Your task to perform on an android device: Open Yahoo.com Image 0: 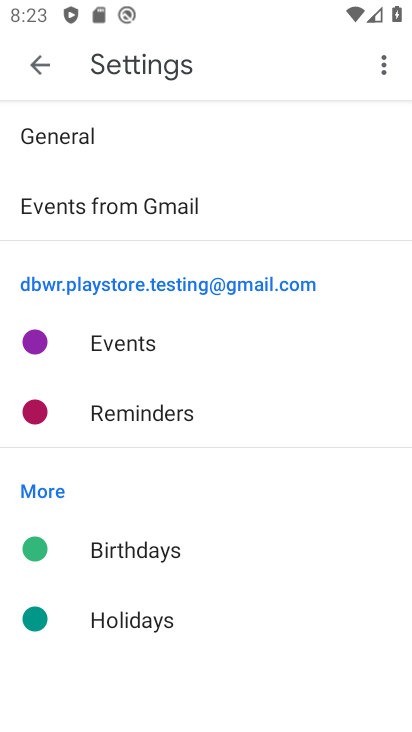
Step 0: press back button
Your task to perform on an android device: Open Yahoo.com Image 1: 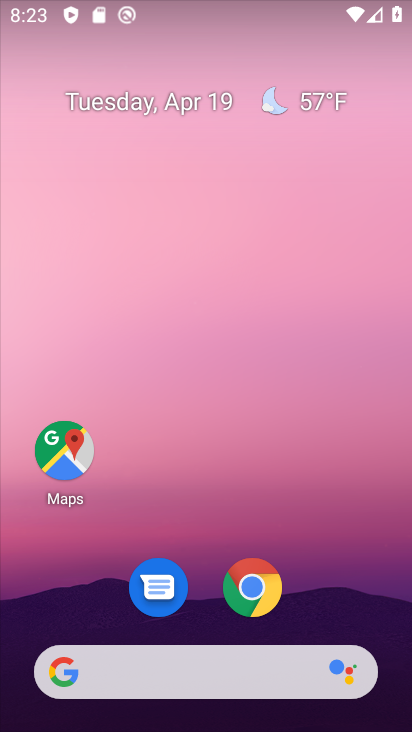
Step 1: click (239, 590)
Your task to perform on an android device: Open Yahoo.com Image 2: 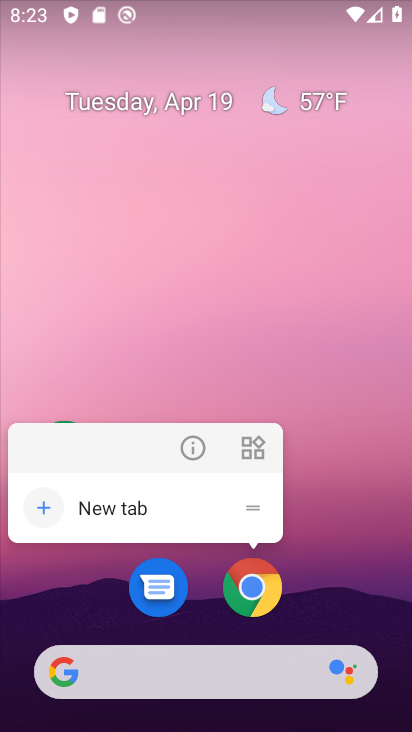
Step 2: click (266, 596)
Your task to perform on an android device: Open Yahoo.com Image 3: 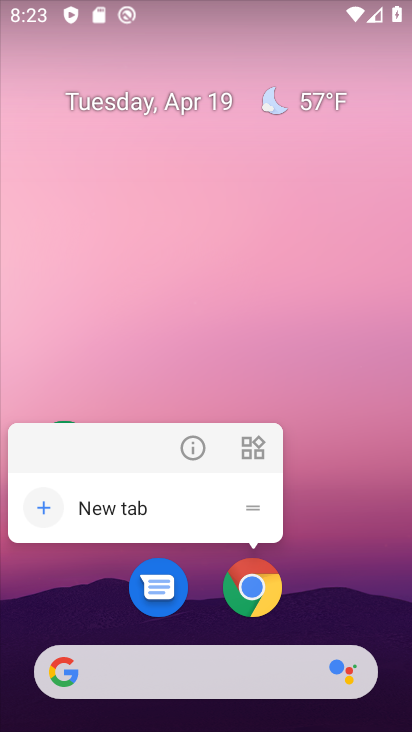
Step 3: click (265, 596)
Your task to perform on an android device: Open Yahoo.com Image 4: 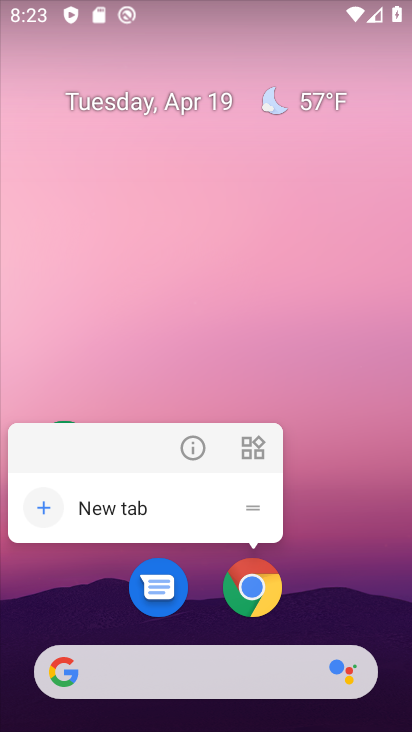
Step 4: click (264, 596)
Your task to perform on an android device: Open Yahoo.com Image 5: 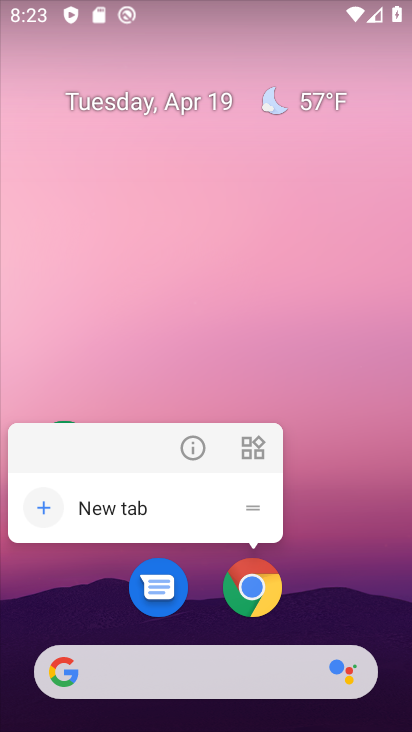
Step 5: click (246, 577)
Your task to perform on an android device: Open Yahoo.com Image 6: 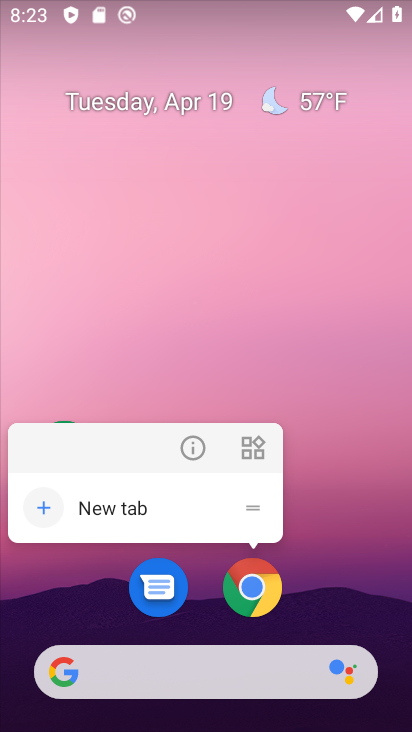
Step 6: click (260, 596)
Your task to perform on an android device: Open Yahoo.com Image 7: 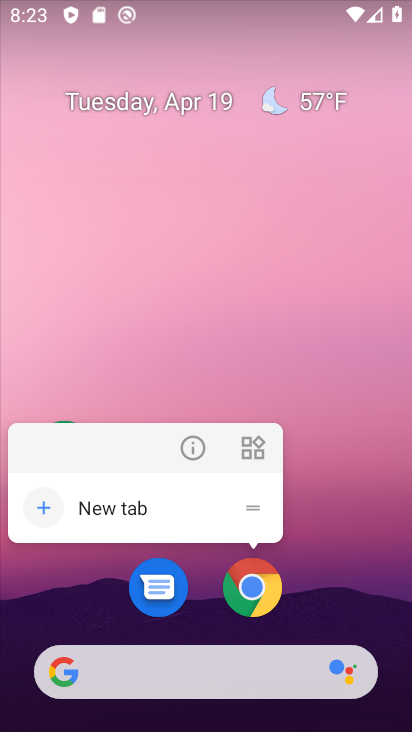
Step 7: click (260, 596)
Your task to perform on an android device: Open Yahoo.com Image 8: 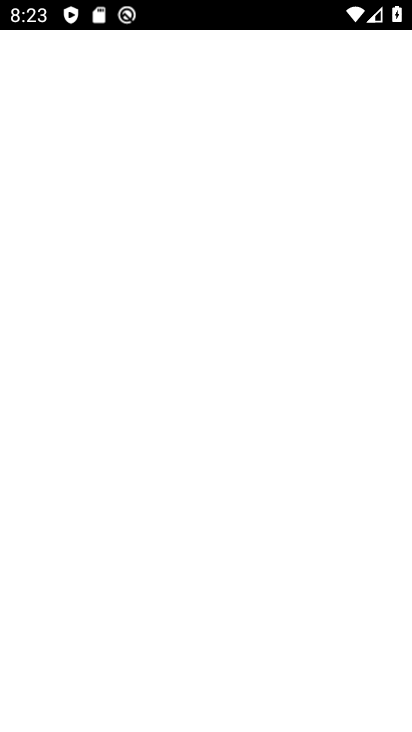
Step 8: drag from (292, 633) to (404, 199)
Your task to perform on an android device: Open Yahoo.com Image 9: 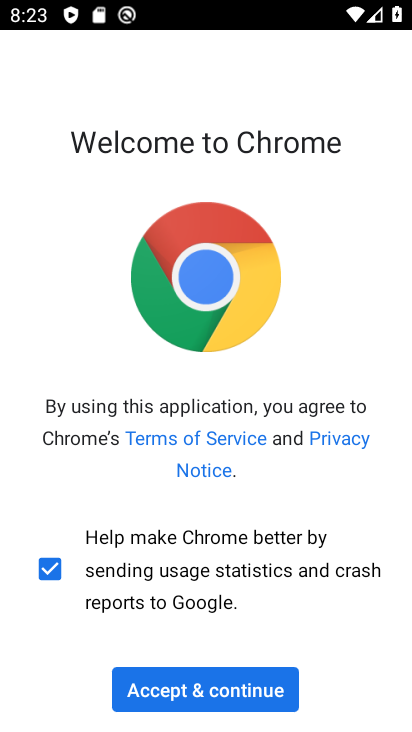
Step 9: click (177, 704)
Your task to perform on an android device: Open Yahoo.com Image 10: 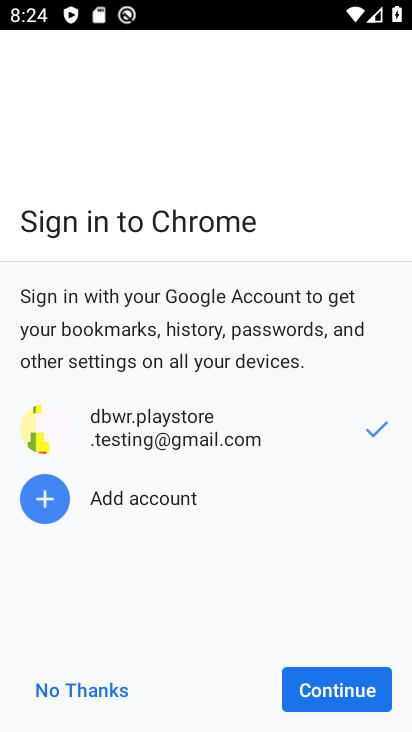
Step 10: click (357, 701)
Your task to perform on an android device: Open Yahoo.com Image 11: 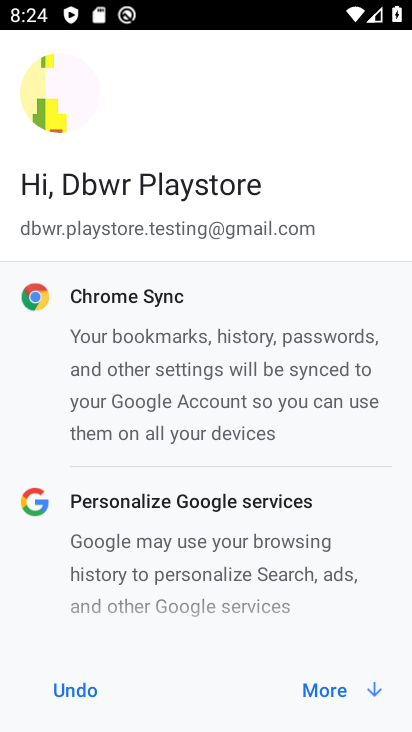
Step 11: click (356, 700)
Your task to perform on an android device: Open Yahoo.com Image 12: 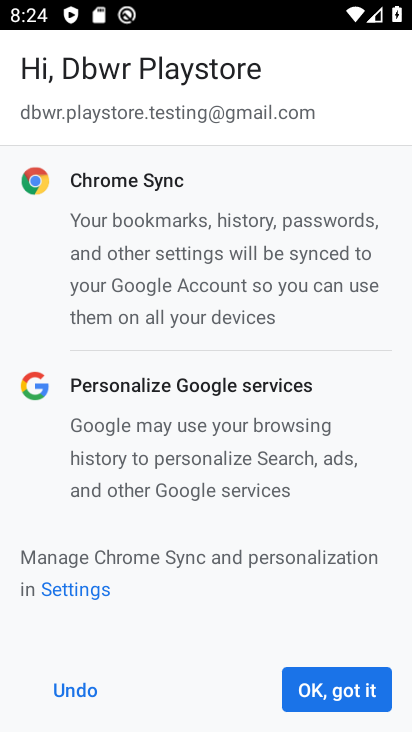
Step 12: click (356, 700)
Your task to perform on an android device: Open Yahoo.com Image 13: 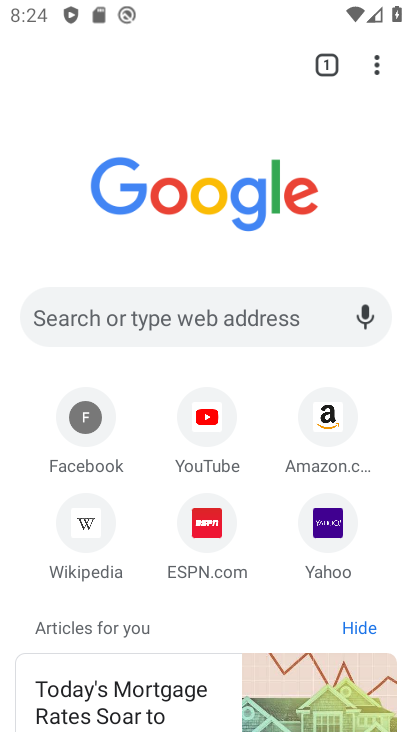
Step 13: click (328, 532)
Your task to perform on an android device: Open Yahoo.com Image 14: 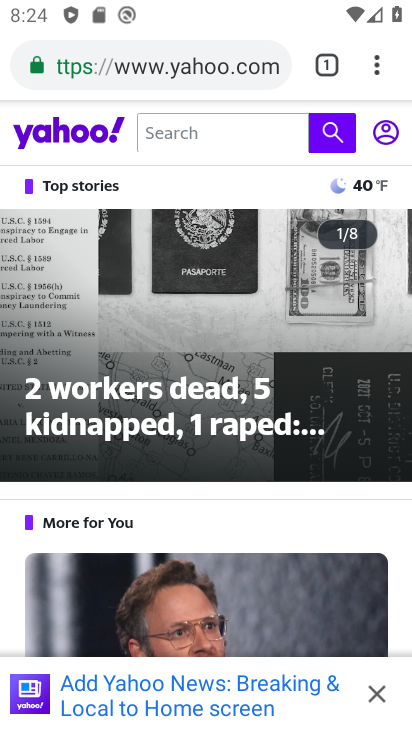
Step 14: task complete